Your task to perform on an android device: see sites visited before in the chrome app Image 0: 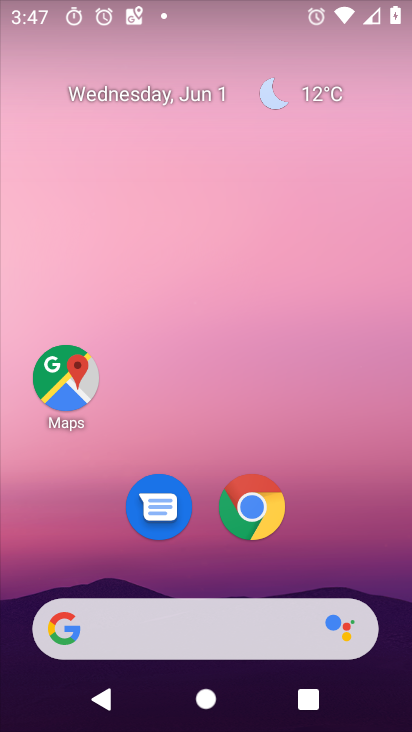
Step 0: click (259, 516)
Your task to perform on an android device: see sites visited before in the chrome app Image 1: 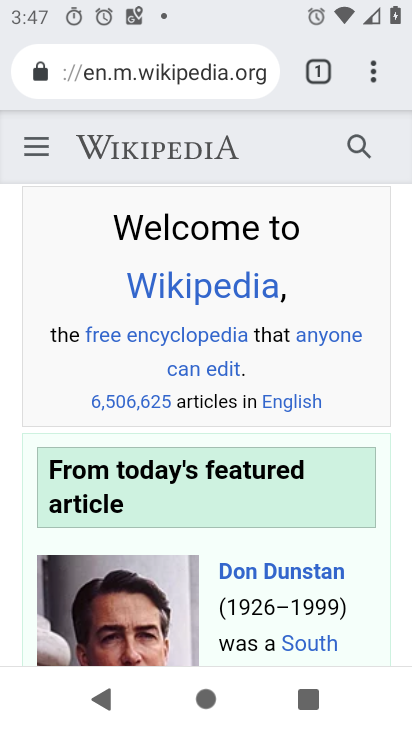
Step 1: task complete